Your task to perform on an android device: uninstall "Paramount+ | Peak Streaming" Image 0: 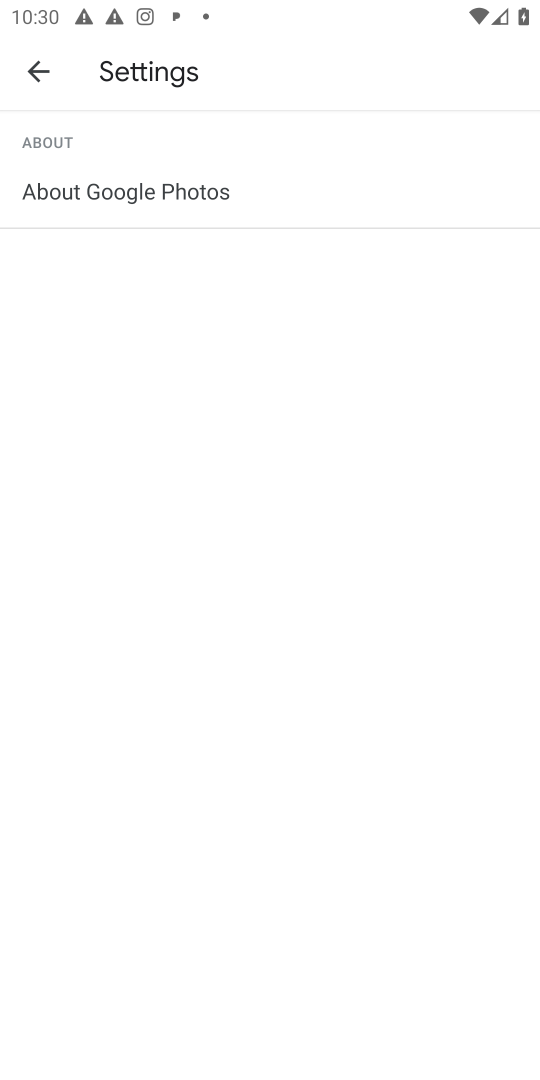
Step 0: press home button
Your task to perform on an android device: uninstall "Paramount+ | Peak Streaming" Image 1: 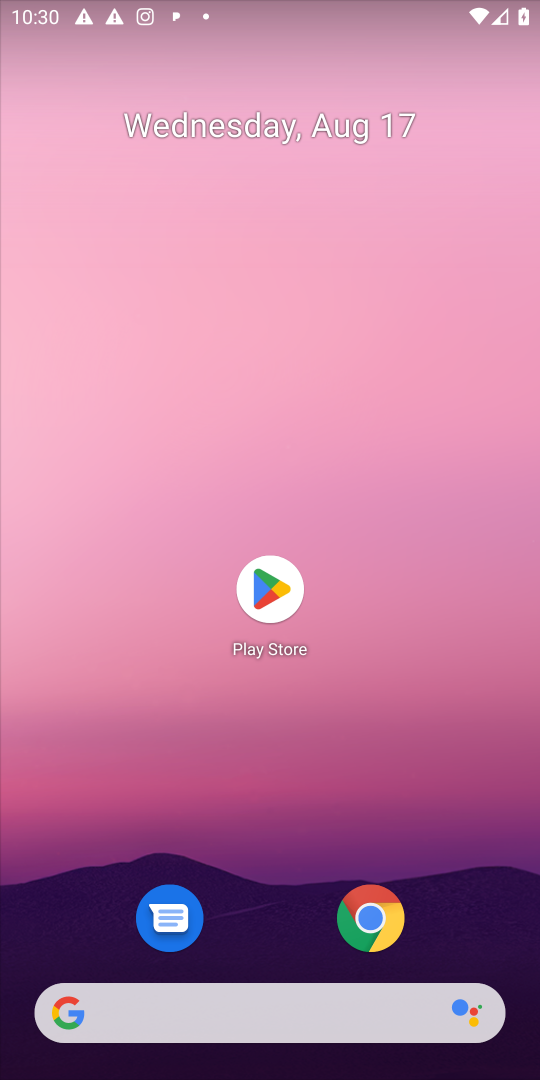
Step 1: click (270, 580)
Your task to perform on an android device: uninstall "Paramount+ | Peak Streaming" Image 2: 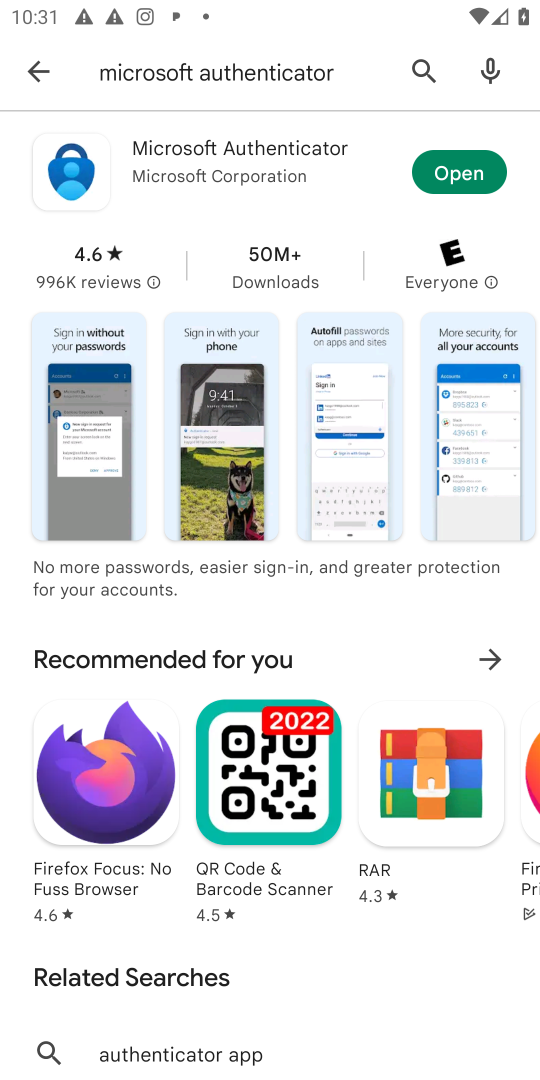
Step 2: click (423, 68)
Your task to perform on an android device: uninstall "Paramount+ | Peak Streaming" Image 3: 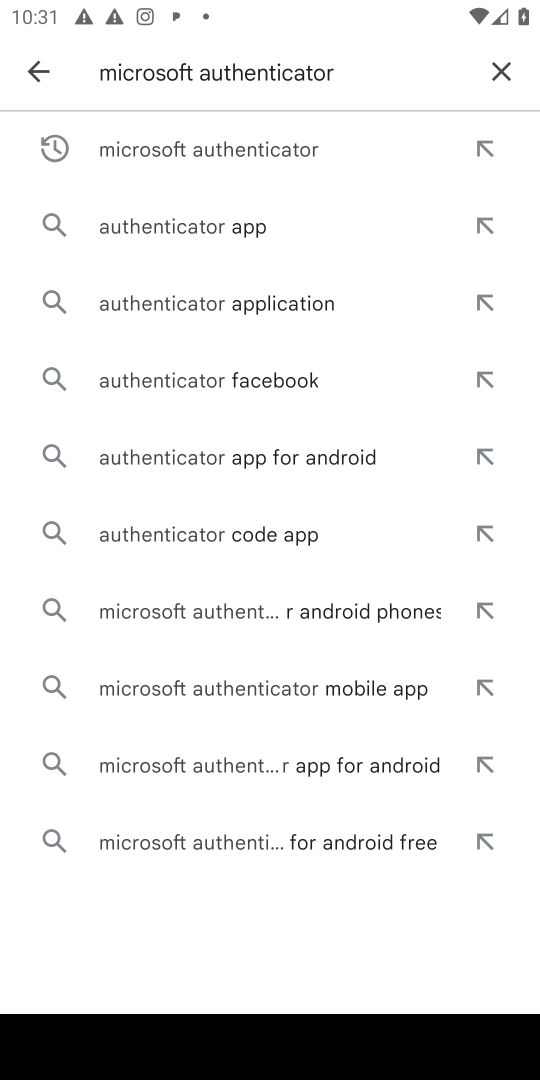
Step 3: click (496, 64)
Your task to perform on an android device: uninstall "Paramount+ | Peak Streaming" Image 4: 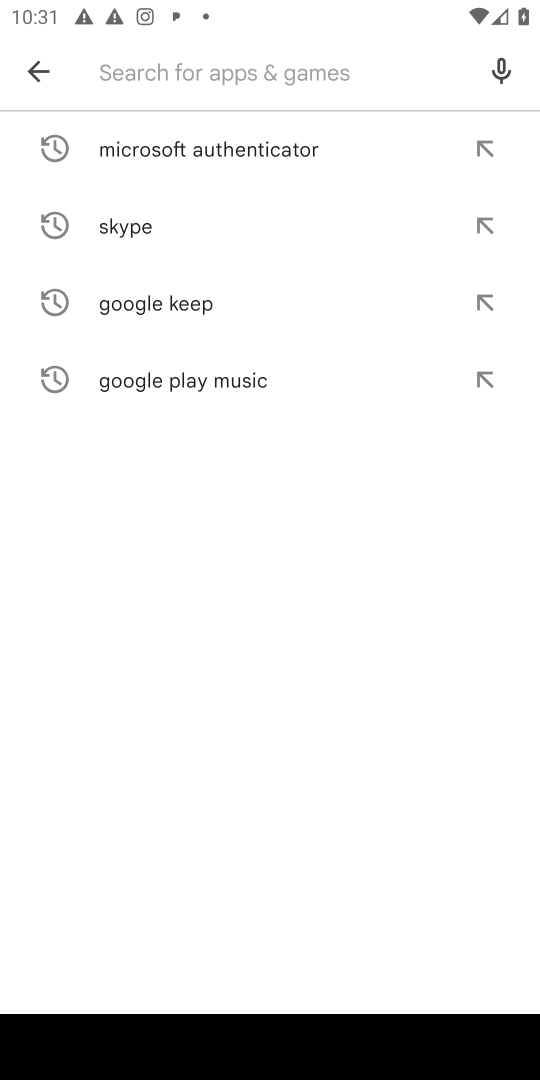
Step 4: type "Paramount+ | Peak Streaming"
Your task to perform on an android device: uninstall "Paramount+ | Peak Streaming" Image 5: 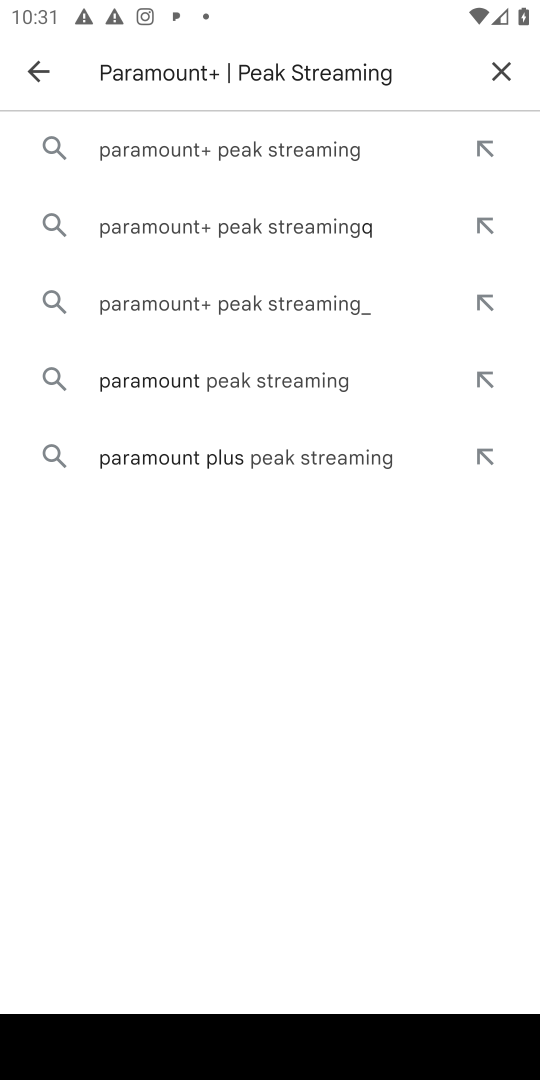
Step 5: click (226, 146)
Your task to perform on an android device: uninstall "Paramount+ | Peak Streaming" Image 6: 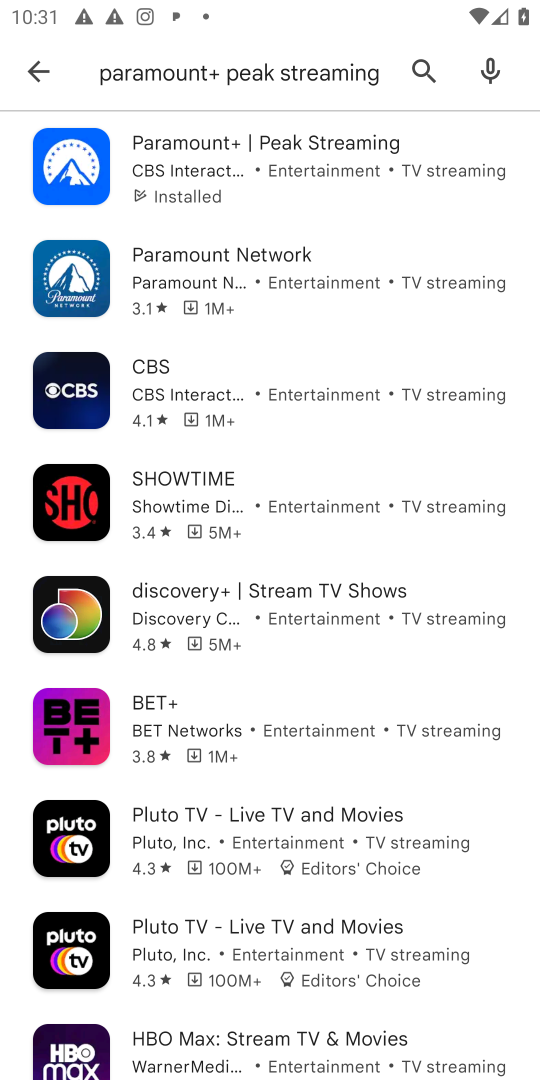
Step 6: click (249, 172)
Your task to perform on an android device: uninstall "Paramount+ | Peak Streaming" Image 7: 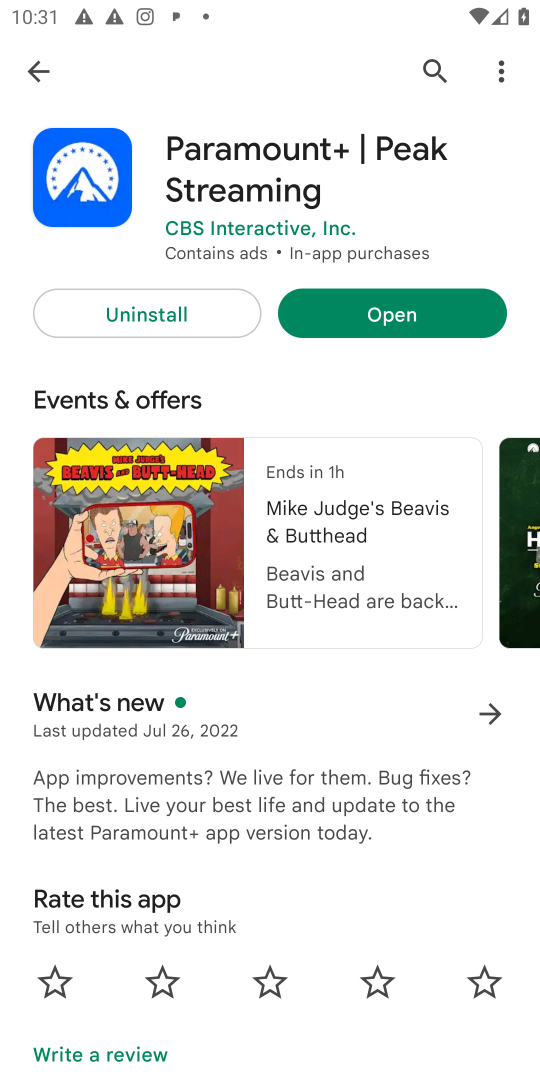
Step 7: click (155, 305)
Your task to perform on an android device: uninstall "Paramount+ | Peak Streaming" Image 8: 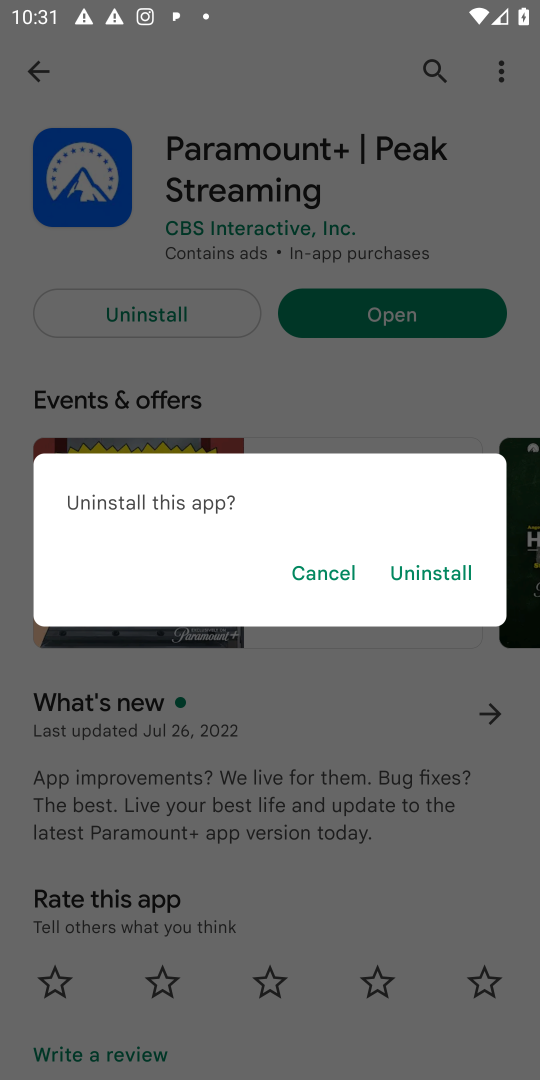
Step 8: click (433, 582)
Your task to perform on an android device: uninstall "Paramount+ | Peak Streaming" Image 9: 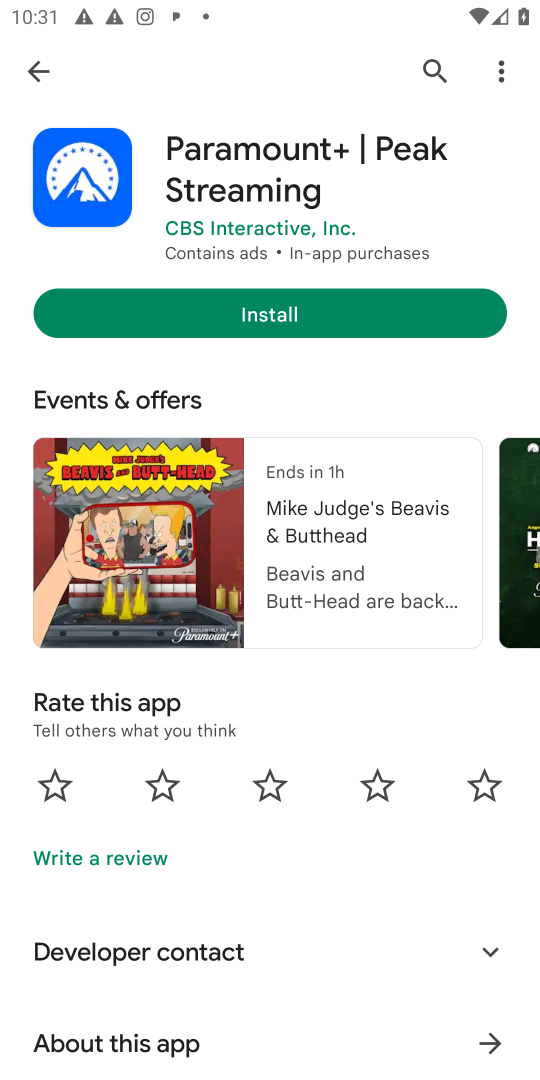
Step 9: task complete